Your task to perform on an android device: change alarm snooze length Image 0: 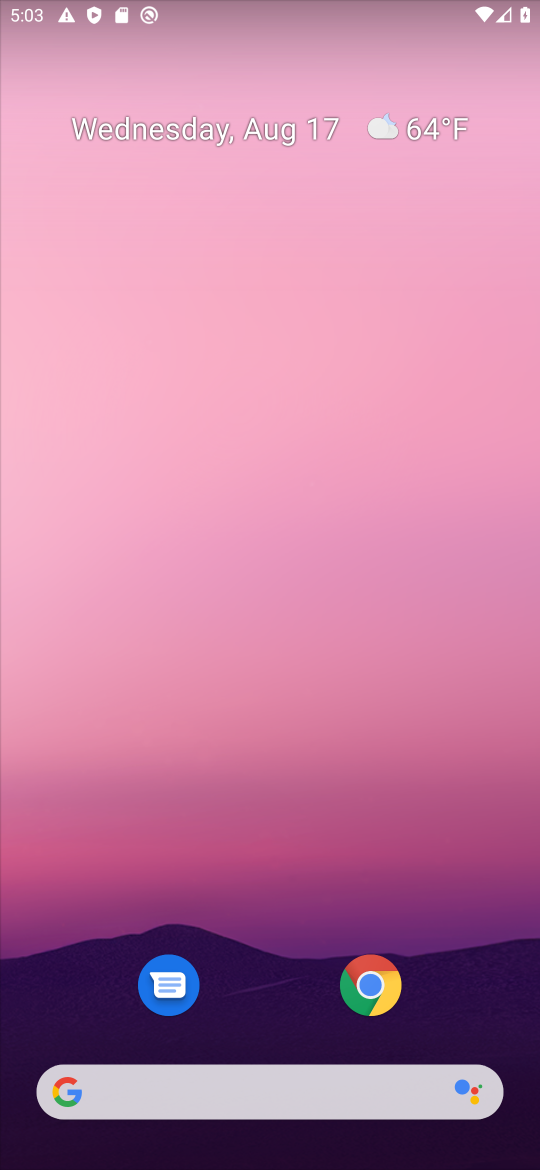
Step 0: drag from (238, 1097) to (260, 127)
Your task to perform on an android device: change alarm snooze length Image 1: 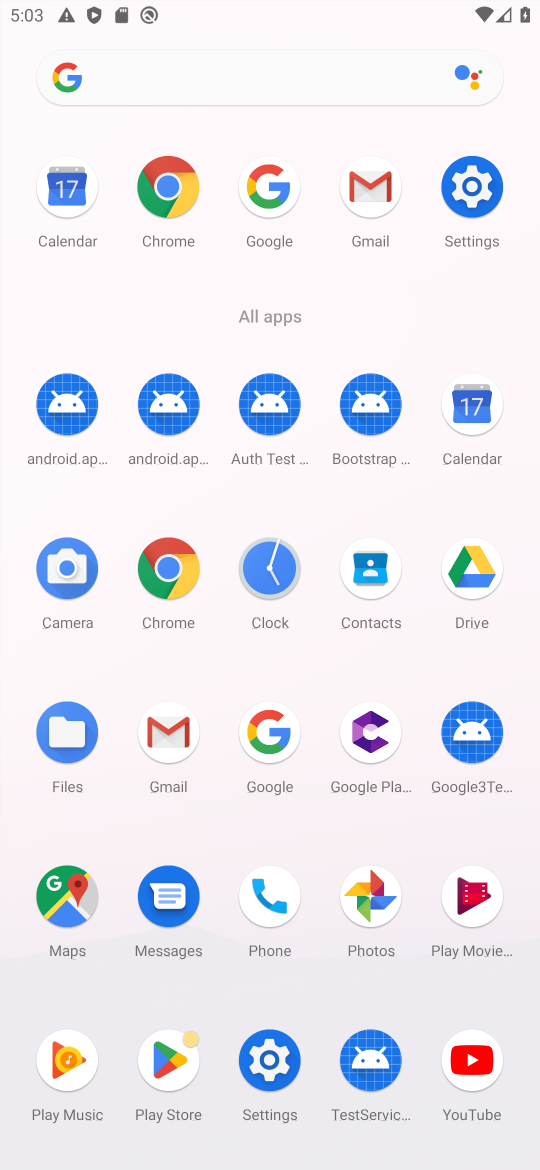
Step 1: click (270, 573)
Your task to perform on an android device: change alarm snooze length Image 2: 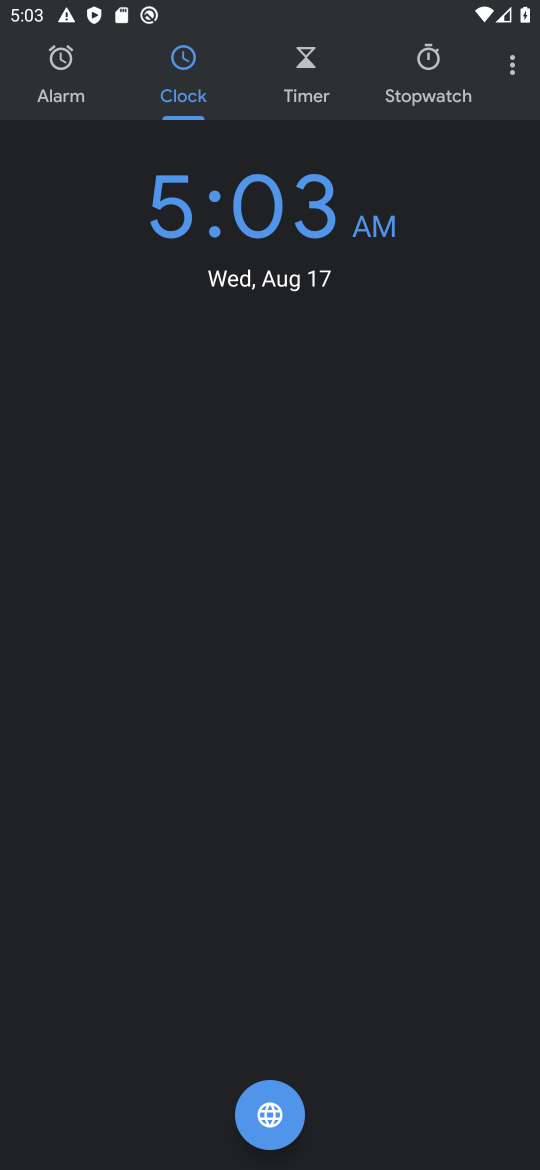
Step 2: click (511, 64)
Your task to perform on an android device: change alarm snooze length Image 3: 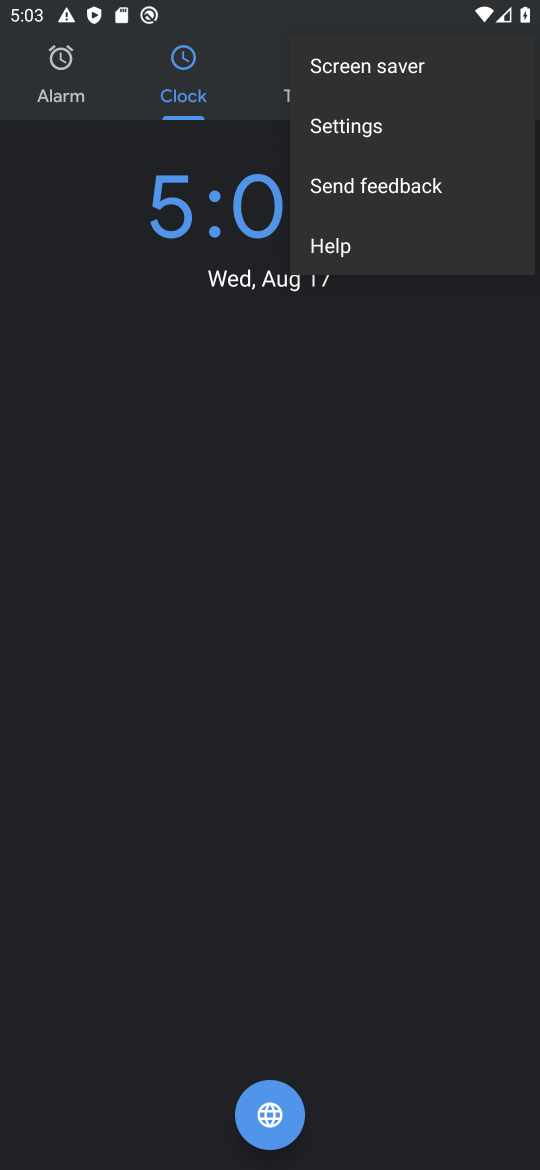
Step 3: click (361, 132)
Your task to perform on an android device: change alarm snooze length Image 4: 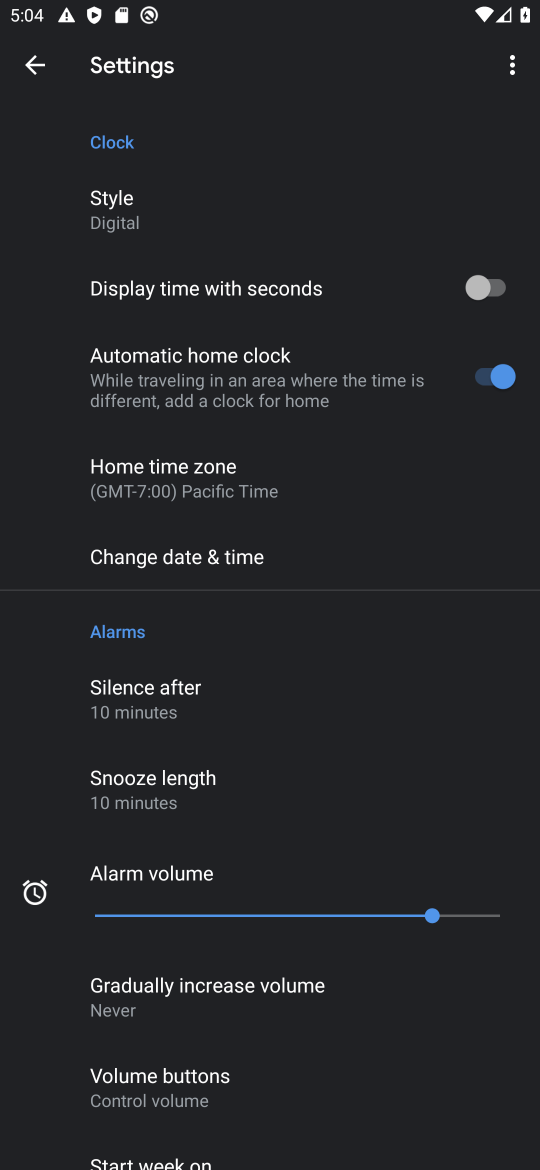
Step 4: click (170, 789)
Your task to perform on an android device: change alarm snooze length Image 5: 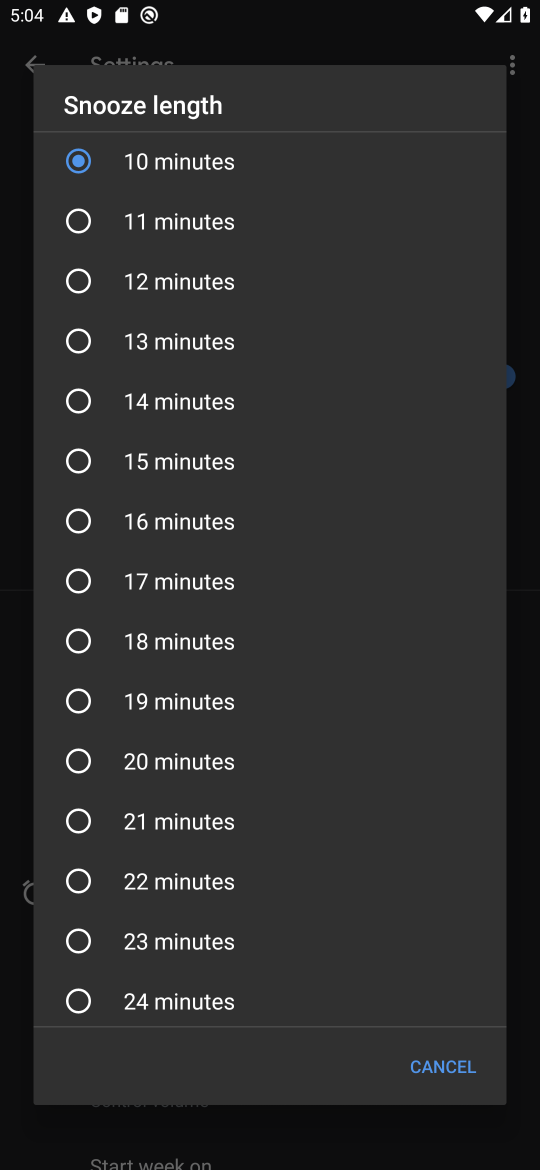
Step 5: drag from (209, 771) to (303, 619)
Your task to perform on an android device: change alarm snooze length Image 6: 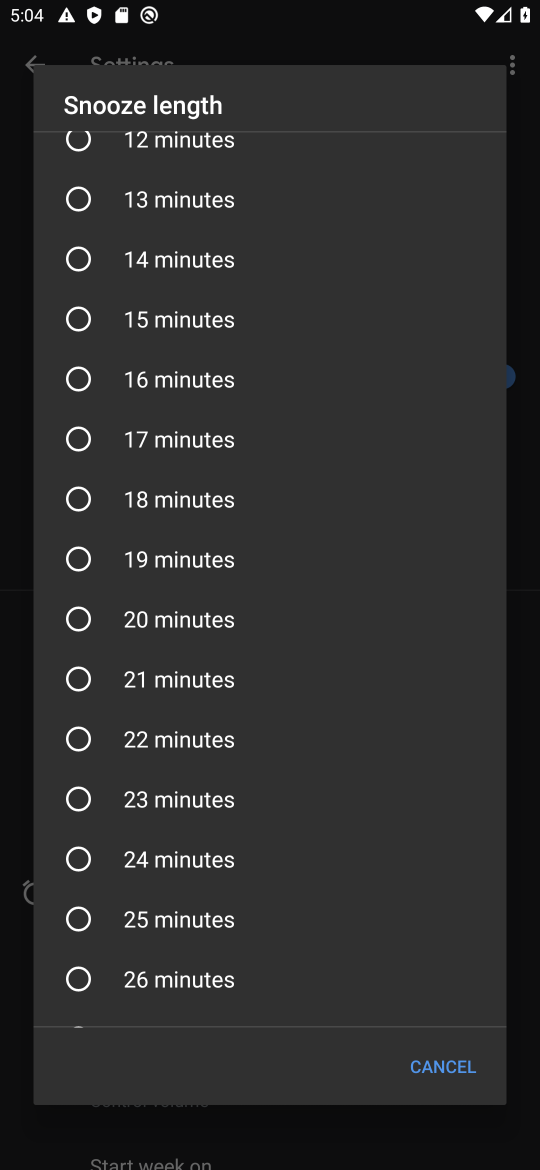
Step 6: click (79, 736)
Your task to perform on an android device: change alarm snooze length Image 7: 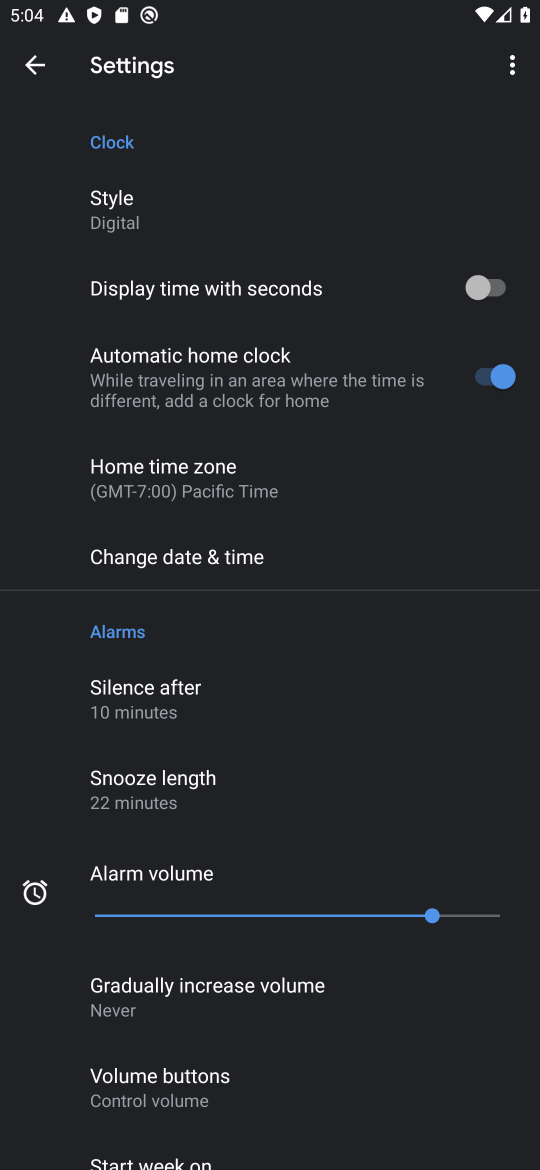
Step 7: task complete